Your task to perform on an android device: What is the recent news? Image 0: 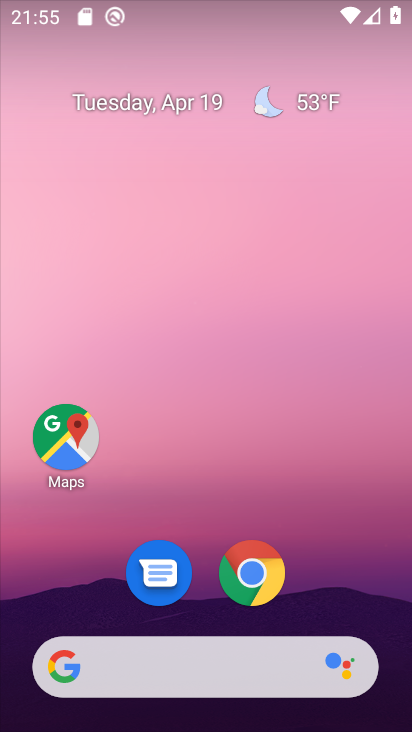
Step 0: drag from (53, 310) to (407, 324)
Your task to perform on an android device: What is the recent news? Image 1: 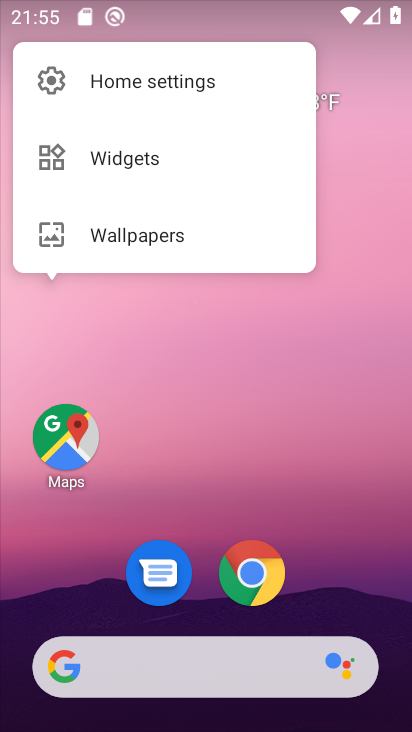
Step 1: click (296, 333)
Your task to perform on an android device: What is the recent news? Image 2: 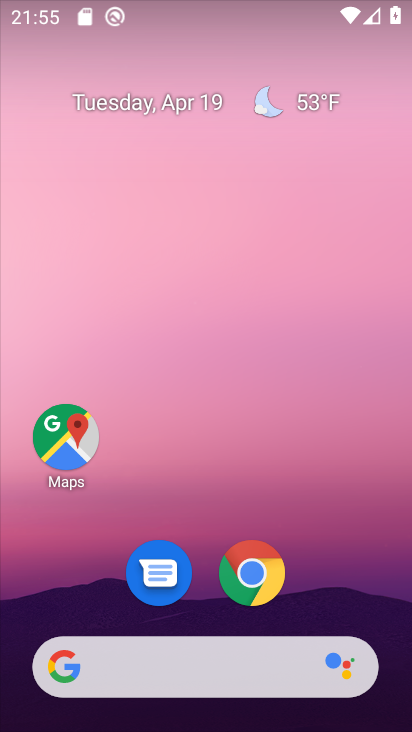
Step 2: click (45, 358)
Your task to perform on an android device: What is the recent news? Image 3: 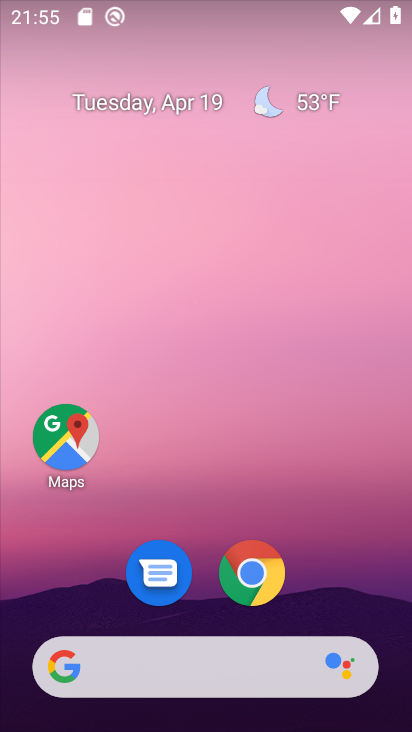
Step 3: task complete